Your task to perform on an android device: Toggle the flashlight Image 0: 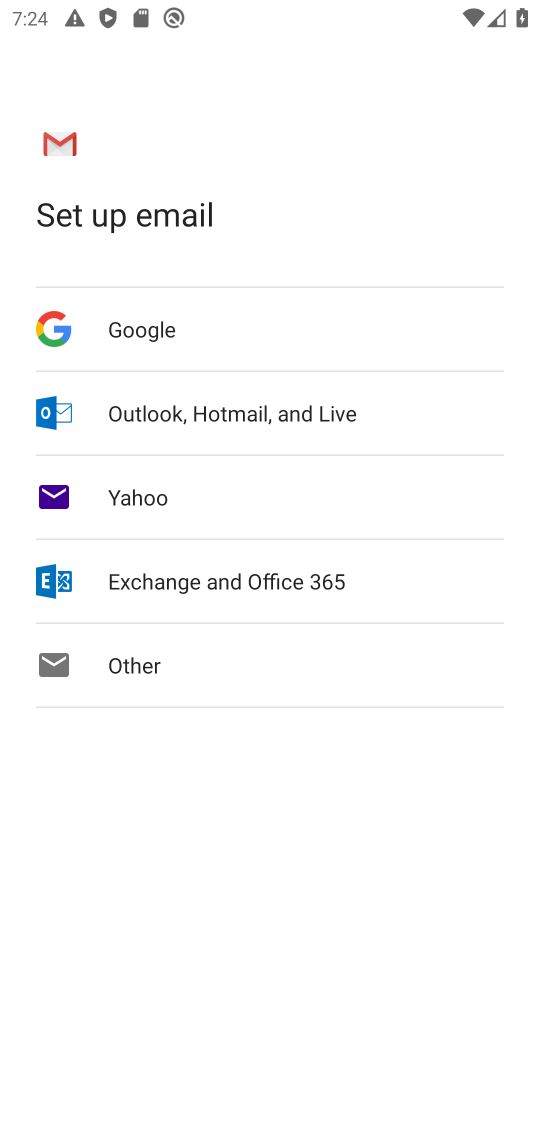
Step 0: press home button
Your task to perform on an android device: Toggle the flashlight Image 1: 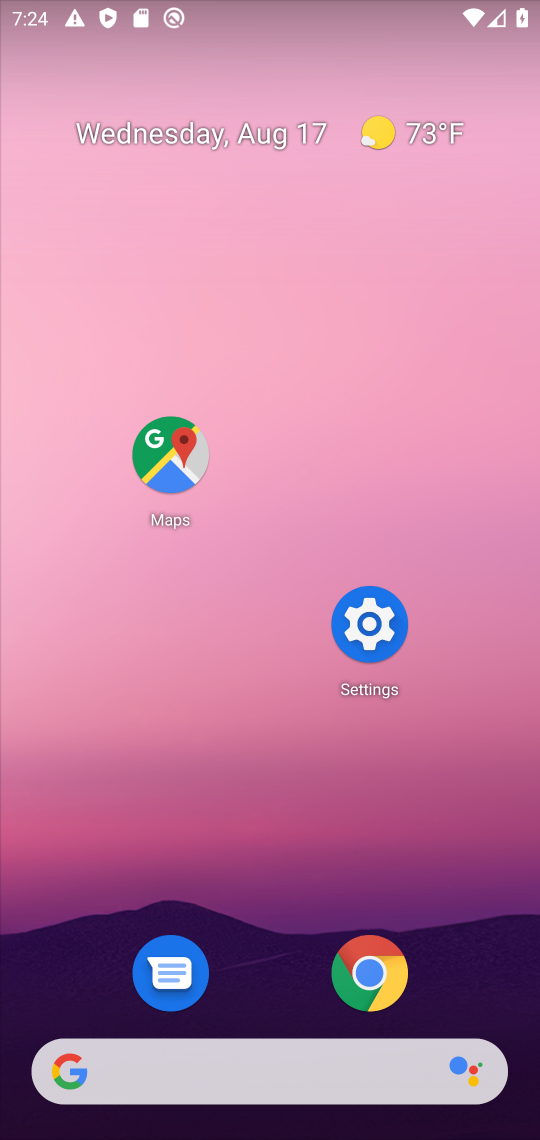
Step 1: task complete